Your task to perform on an android device: toggle javascript in the chrome app Image 0: 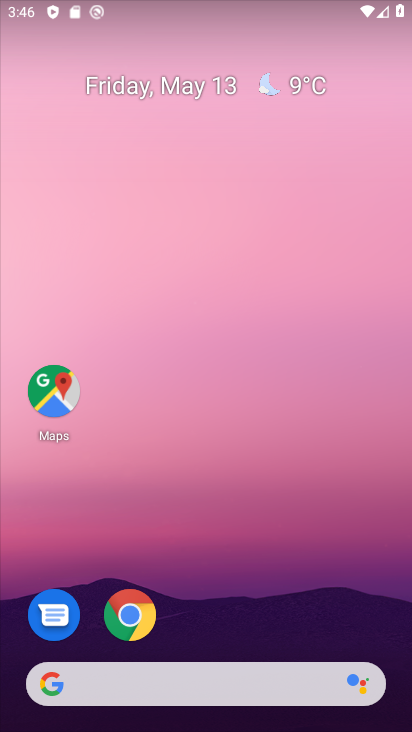
Step 0: click (125, 617)
Your task to perform on an android device: toggle javascript in the chrome app Image 1: 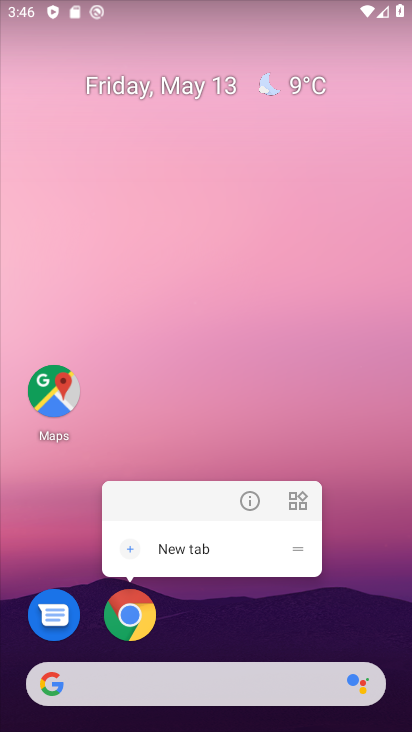
Step 1: click (132, 612)
Your task to perform on an android device: toggle javascript in the chrome app Image 2: 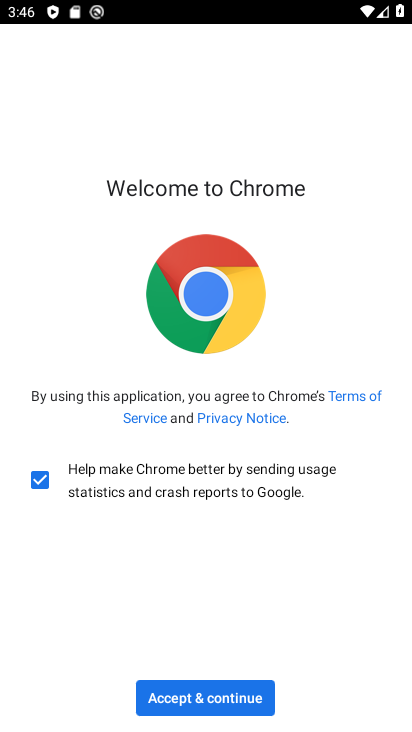
Step 2: click (199, 695)
Your task to perform on an android device: toggle javascript in the chrome app Image 3: 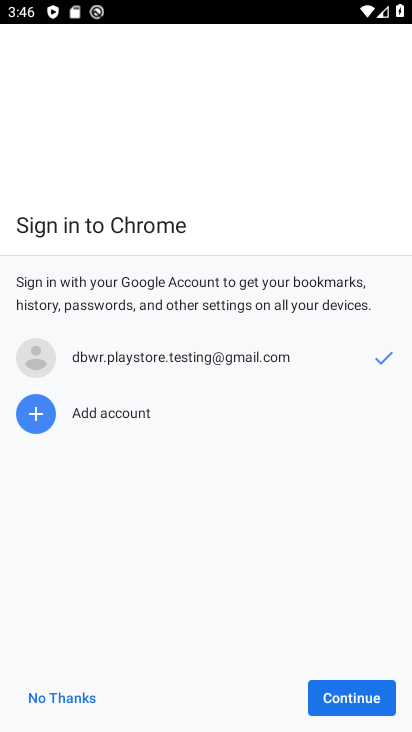
Step 3: click (348, 696)
Your task to perform on an android device: toggle javascript in the chrome app Image 4: 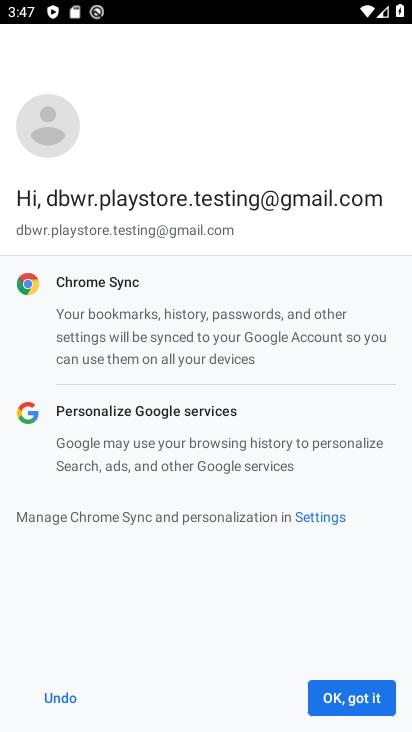
Step 4: click (338, 694)
Your task to perform on an android device: toggle javascript in the chrome app Image 5: 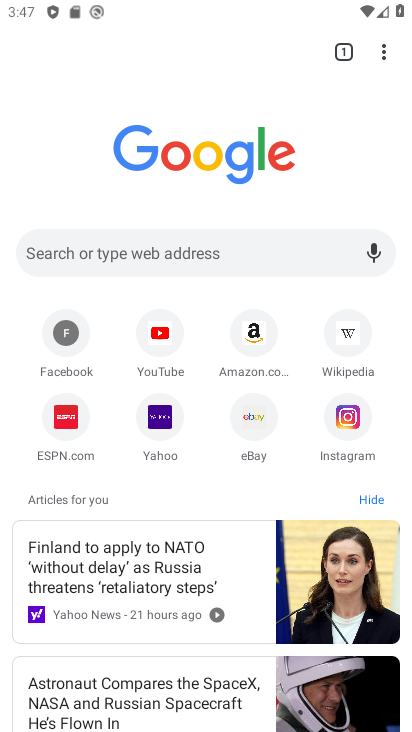
Step 5: drag from (390, 41) to (222, 438)
Your task to perform on an android device: toggle javascript in the chrome app Image 6: 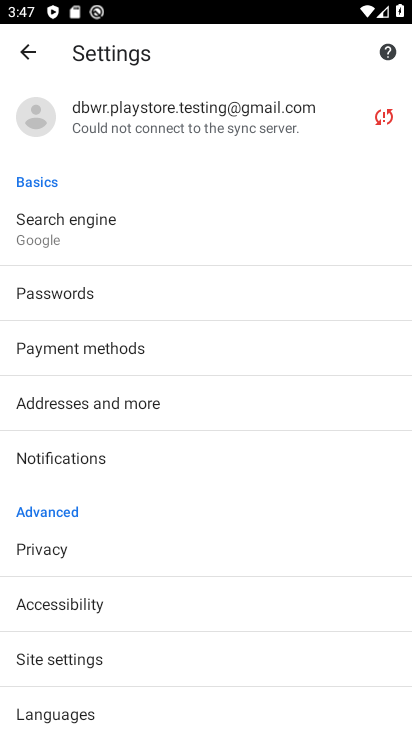
Step 6: click (91, 662)
Your task to perform on an android device: toggle javascript in the chrome app Image 7: 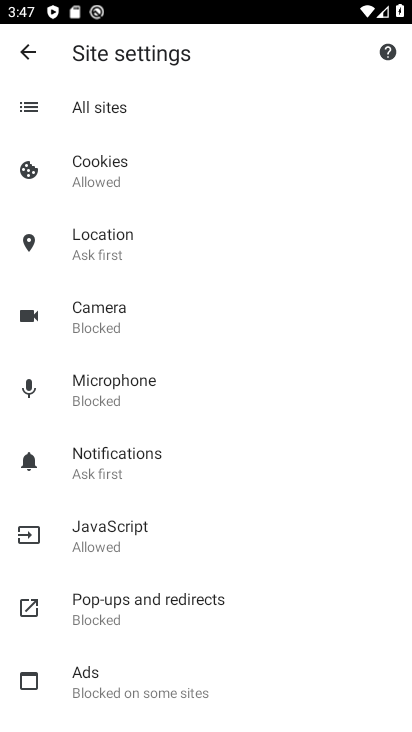
Step 7: click (104, 528)
Your task to perform on an android device: toggle javascript in the chrome app Image 8: 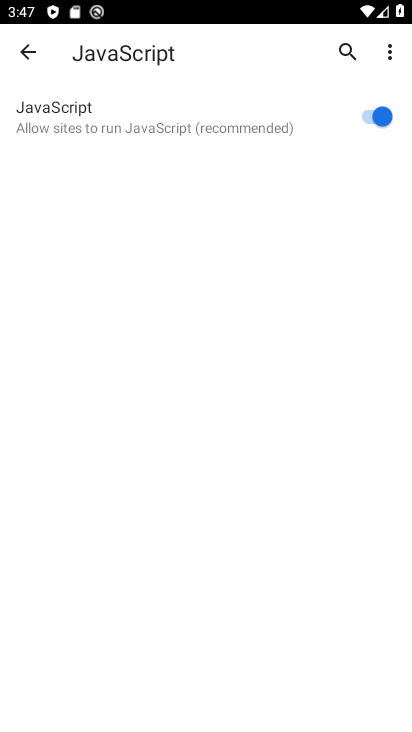
Step 8: click (377, 121)
Your task to perform on an android device: toggle javascript in the chrome app Image 9: 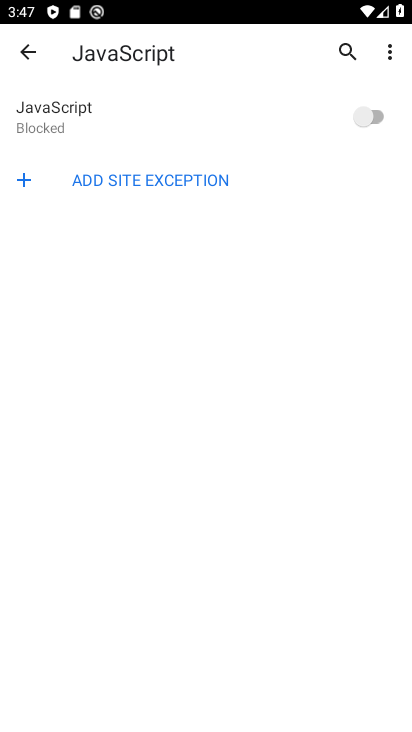
Step 9: task complete